Your task to perform on an android device: Search for pizza restaurants on Maps Image 0: 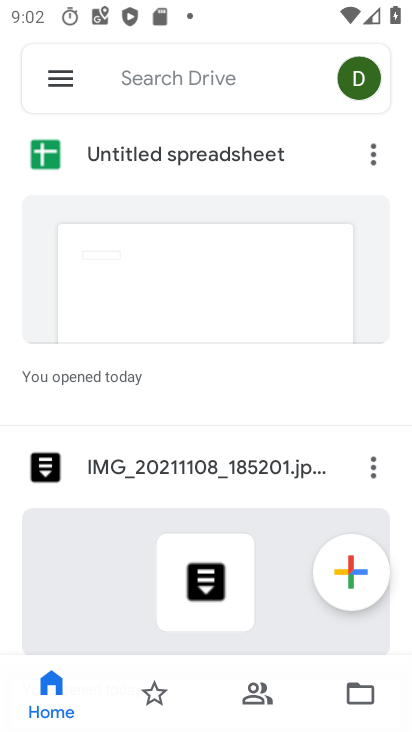
Step 0: press home button
Your task to perform on an android device: Search for pizza restaurants on Maps Image 1: 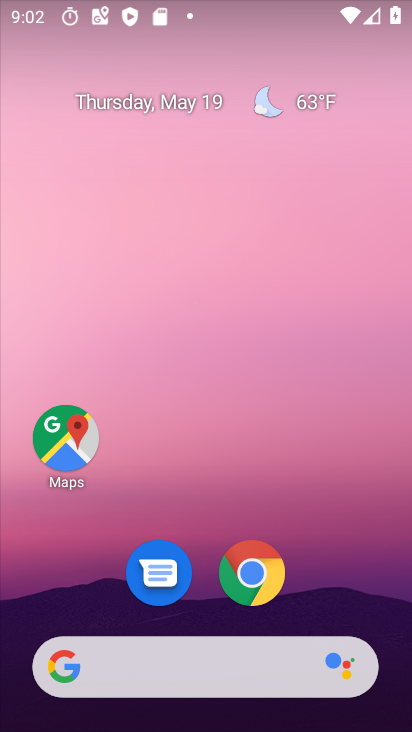
Step 1: click (68, 434)
Your task to perform on an android device: Search for pizza restaurants on Maps Image 2: 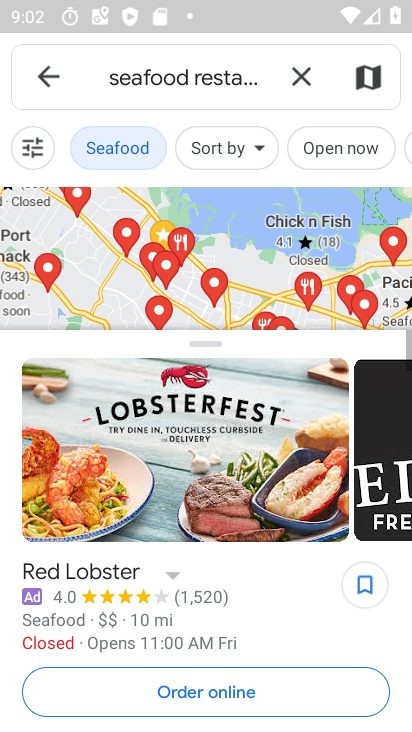
Step 2: click (299, 76)
Your task to perform on an android device: Search for pizza restaurants on Maps Image 3: 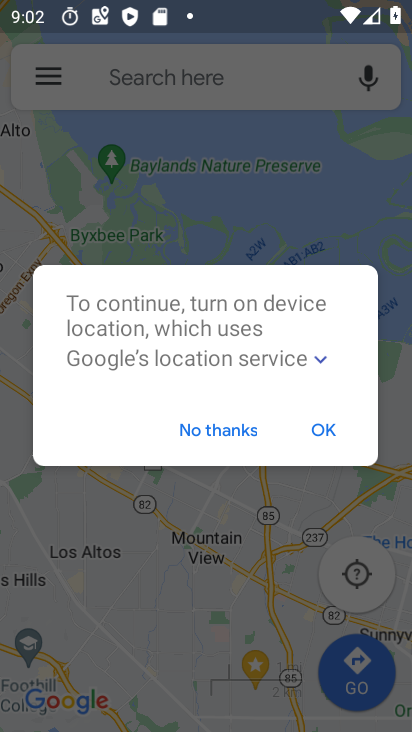
Step 3: click (238, 428)
Your task to perform on an android device: Search for pizza restaurants on Maps Image 4: 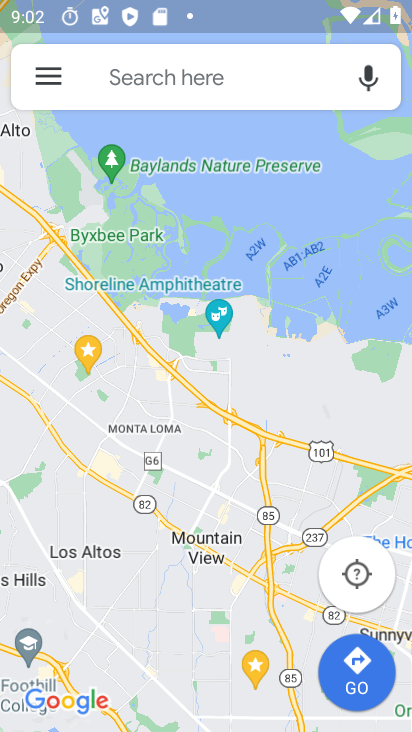
Step 4: click (118, 76)
Your task to perform on an android device: Search for pizza restaurants on Maps Image 5: 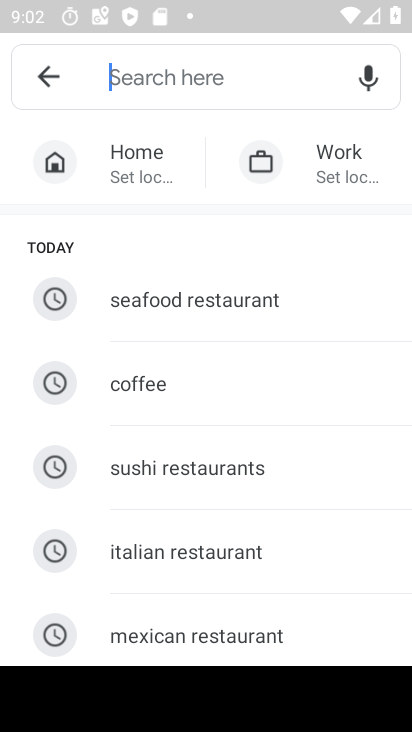
Step 5: type "pizza restaurant"
Your task to perform on an android device: Search for pizza restaurants on Maps Image 6: 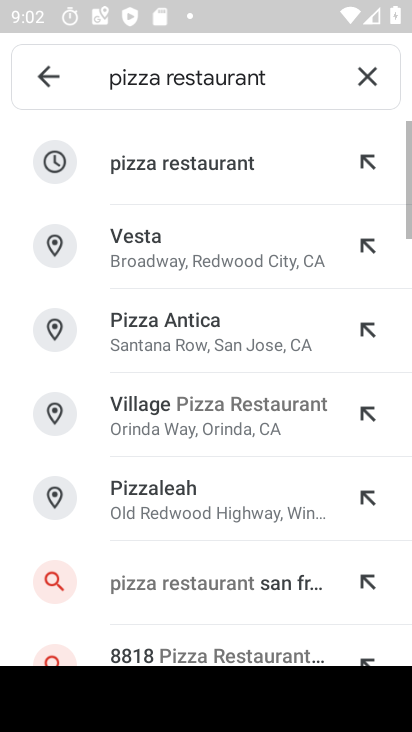
Step 6: click (183, 170)
Your task to perform on an android device: Search for pizza restaurants on Maps Image 7: 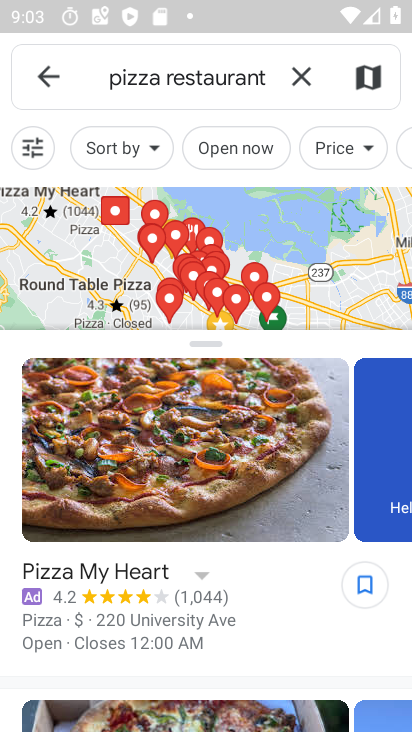
Step 7: task complete